Your task to perform on an android device: Go to Yahoo.com Image 0: 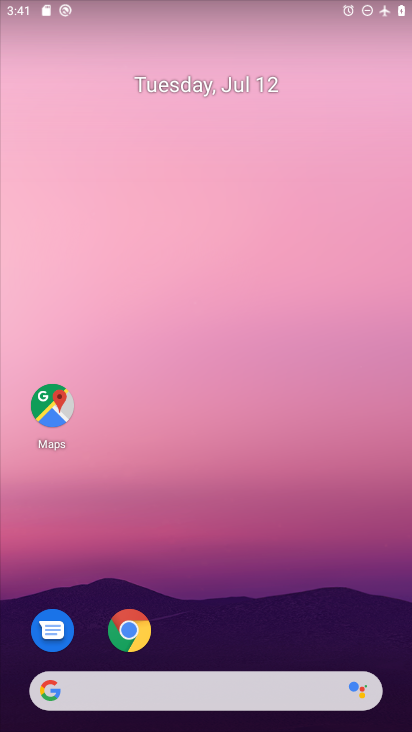
Step 0: click (134, 621)
Your task to perform on an android device: Go to Yahoo.com Image 1: 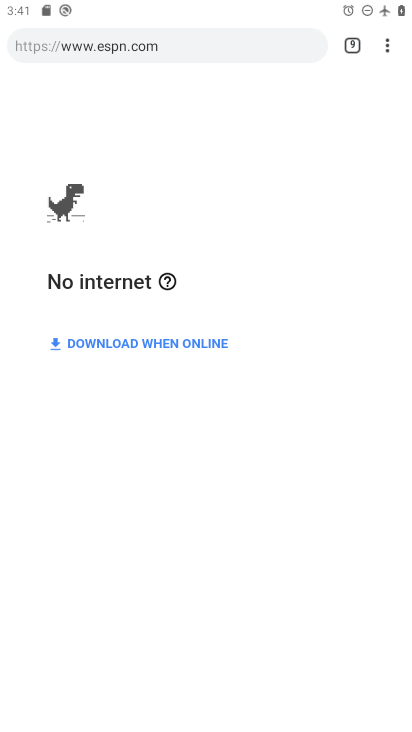
Step 1: click (354, 47)
Your task to perform on an android device: Go to Yahoo.com Image 2: 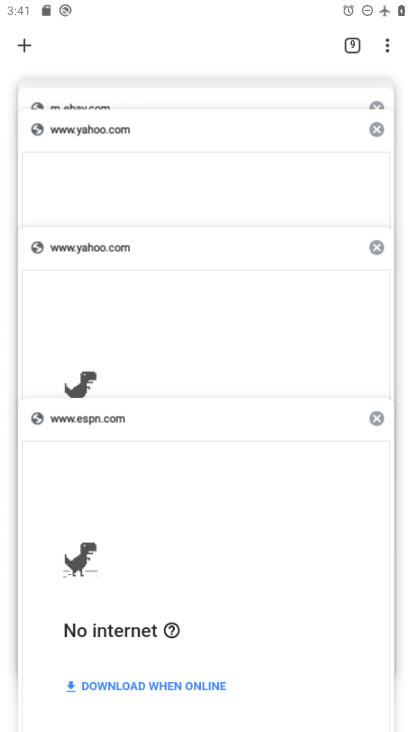
Step 2: click (27, 42)
Your task to perform on an android device: Go to Yahoo.com Image 3: 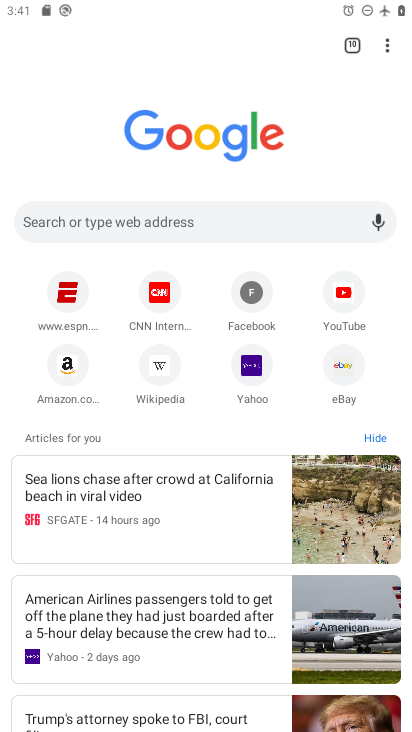
Step 3: click (259, 380)
Your task to perform on an android device: Go to Yahoo.com Image 4: 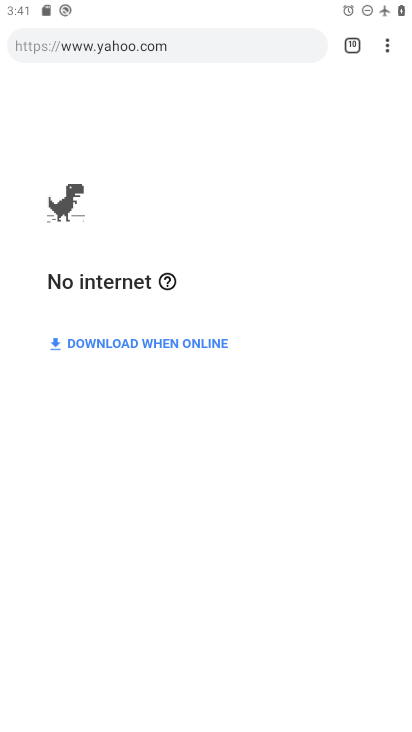
Step 4: task complete